Your task to perform on an android device: turn on the 24-hour format for clock Image 0: 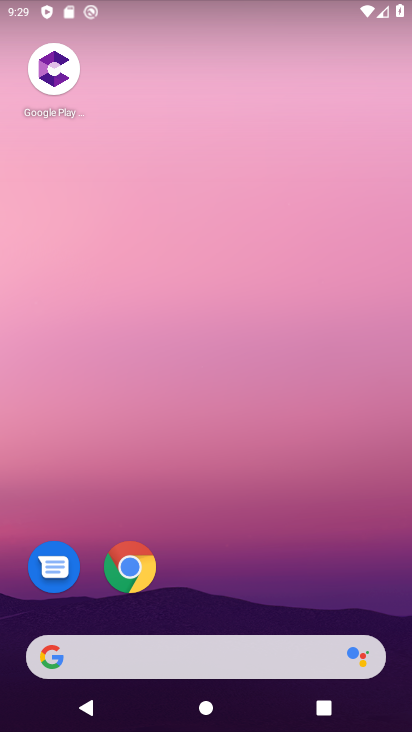
Step 0: drag from (199, 601) to (225, 69)
Your task to perform on an android device: turn on the 24-hour format for clock Image 1: 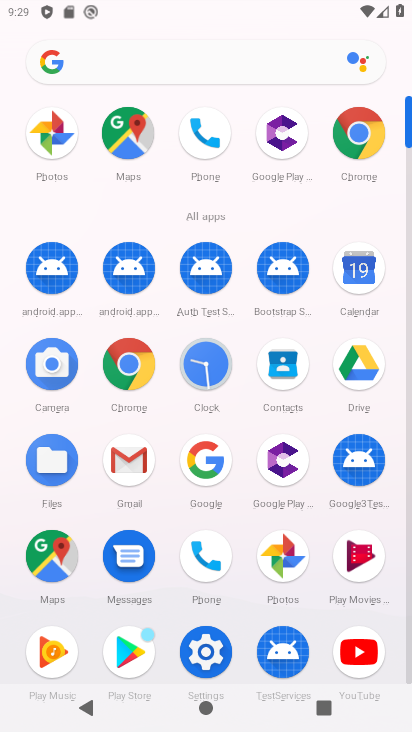
Step 1: click (201, 361)
Your task to perform on an android device: turn on the 24-hour format for clock Image 2: 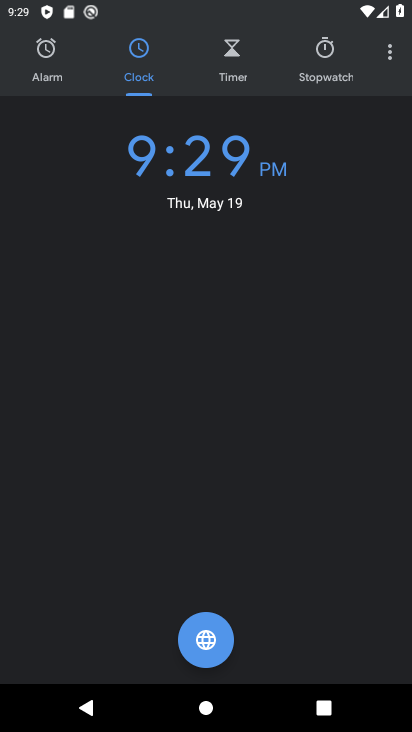
Step 2: click (390, 51)
Your task to perform on an android device: turn on the 24-hour format for clock Image 3: 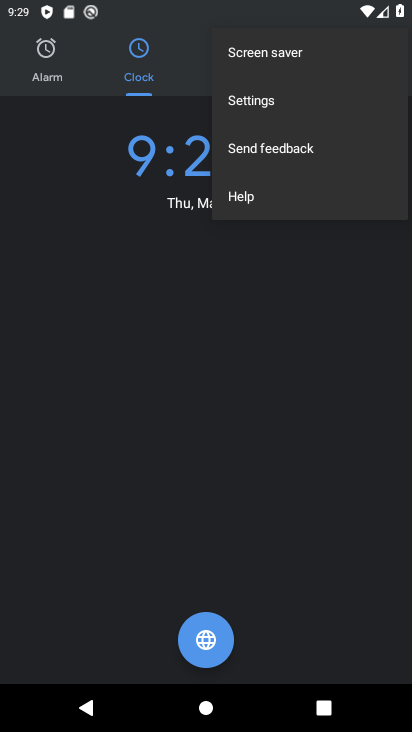
Step 3: click (320, 103)
Your task to perform on an android device: turn on the 24-hour format for clock Image 4: 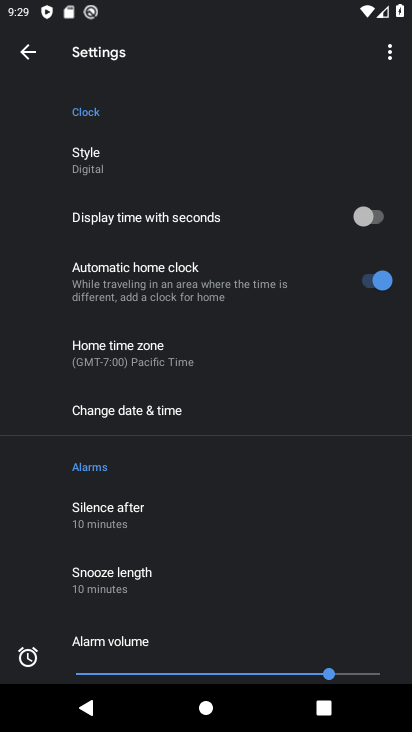
Step 4: click (195, 426)
Your task to perform on an android device: turn on the 24-hour format for clock Image 5: 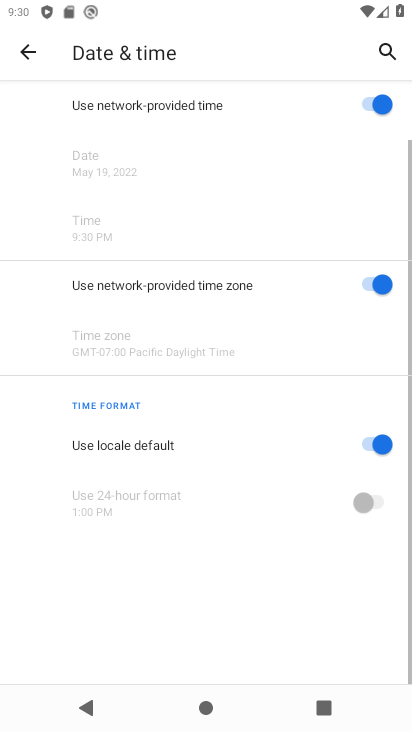
Step 5: click (372, 435)
Your task to perform on an android device: turn on the 24-hour format for clock Image 6: 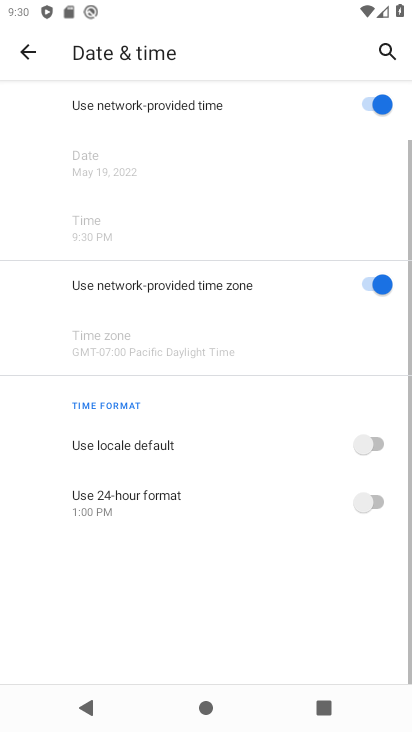
Step 6: click (375, 500)
Your task to perform on an android device: turn on the 24-hour format for clock Image 7: 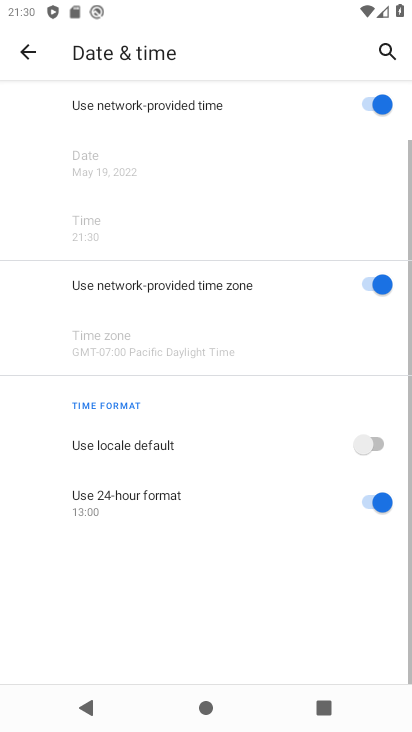
Step 7: task complete